Your task to perform on an android device: Open calendar and show me the fourth week of next month Image 0: 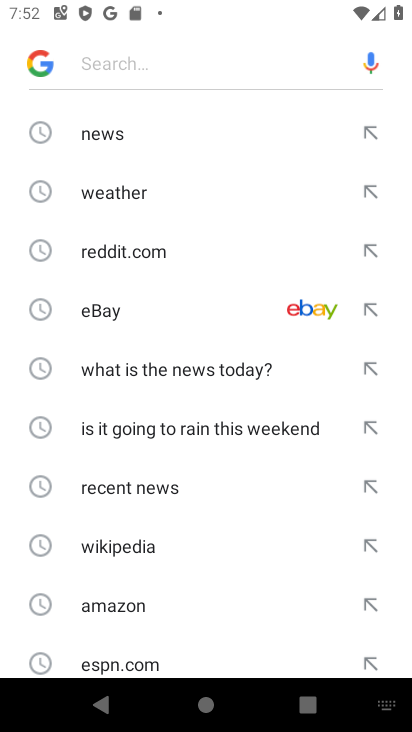
Step 0: press home button
Your task to perform on an android device: Open calendar and show me the fourth week of next month Image 1: 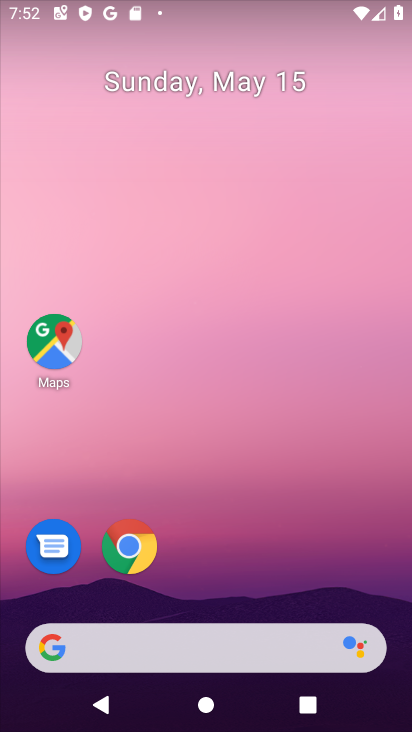
Step 1: drag from (248, 491) to (243, 23)
Your task to perform on an android device: Open calendar and show me the fourth week of next month Image 2: 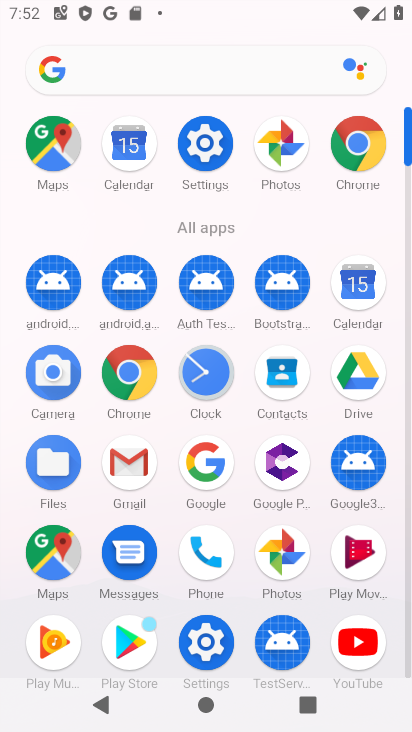
Step 2: click (130, 151)
Your task to perform on an android device: Open calendar and show me the fourth week of next month Image 3: 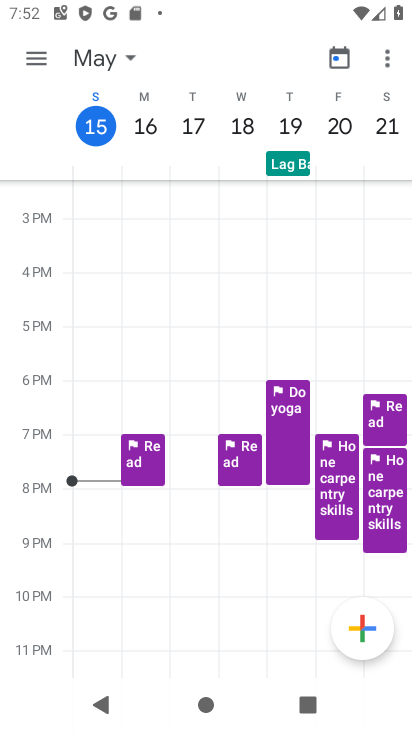
Step 3: click (35, 59)
Your task to perform on an android device: Open calendar and show me the fourth week of next month Image 4: 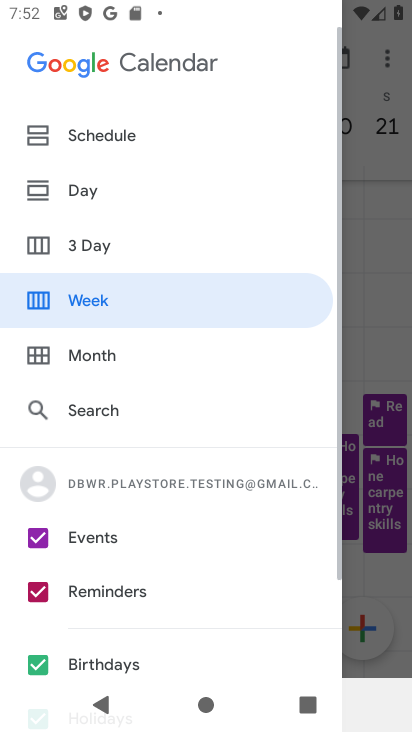
Step 4: click (78, 354)
Your task to perform on an android device: Open calendar and show me the fourth week of next month Image 5: 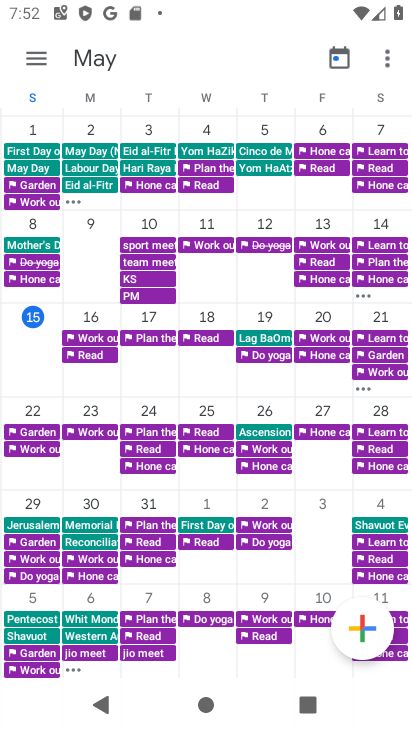
Step 5: drag from (368, 391) to (0, 395)
Your task to perform on an android device: Open calendar and show me the fourth week of next month Image 6: 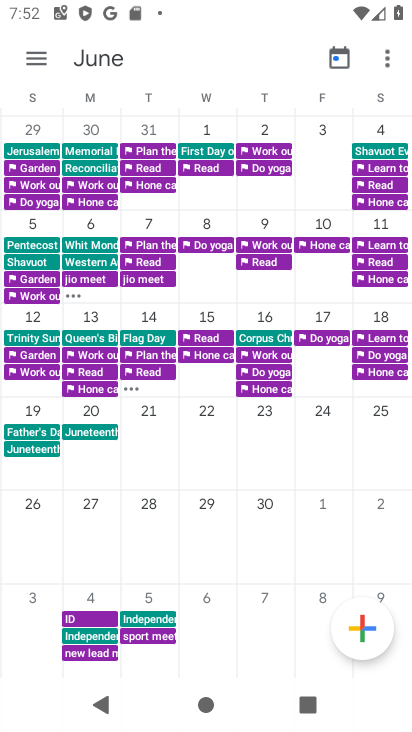
Step 6: click (26, 499)
Your task to perform on an android device: Open calendar and show me the fourth week of next month Image 7: 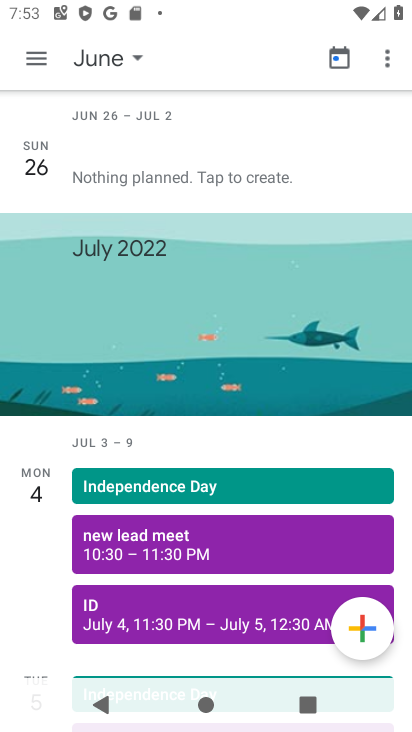
Step 7: click (40, 56)
Your task to perform on an android device: Open calendar and show me the fourth week of next month Image 8: 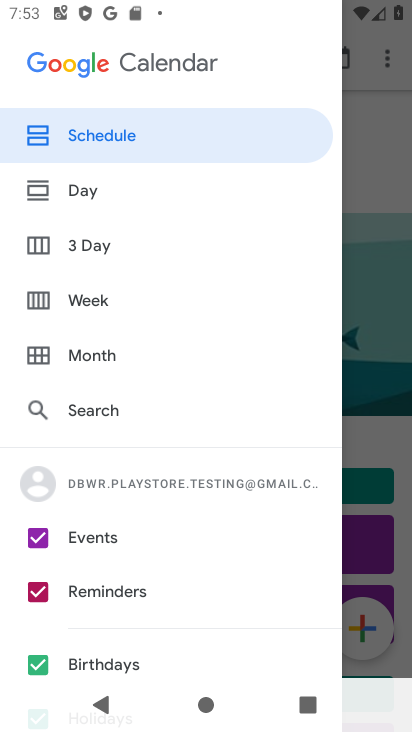
Step 8: click (84, 298)
Your task to perform on an android device: Open calendar and show me the fourth week of next month Image 9: 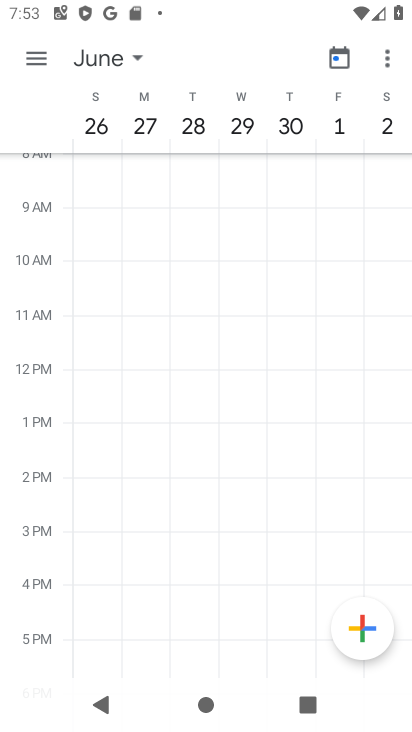
Step 9: task complete